Your task to perform on an android device: Go to Yahoo.com Image 0: 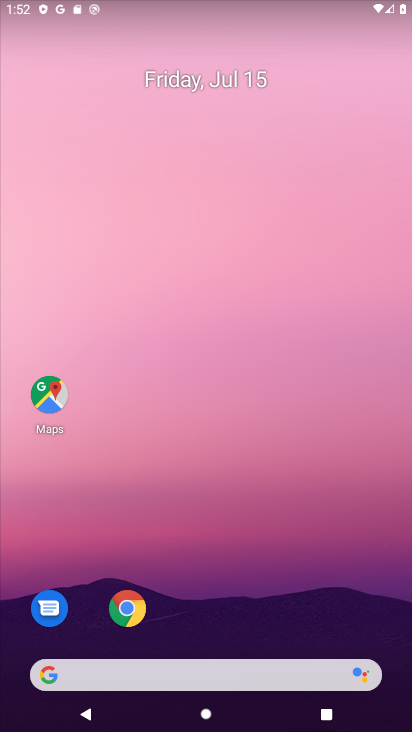
Step 0: click (135, 610)
Your task to perform on an android device: Go to Yahoo.com Image 1: 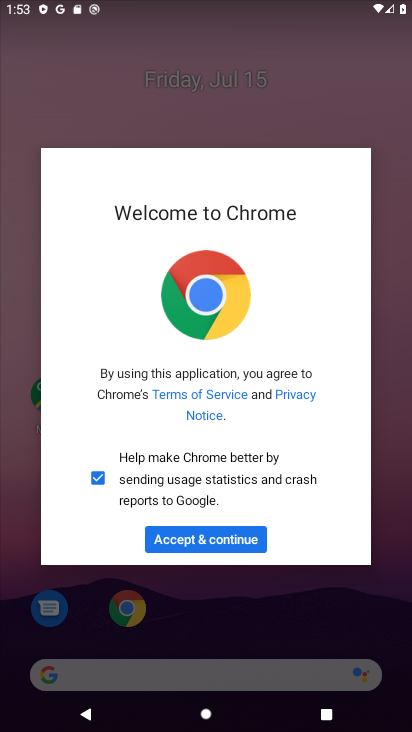
Step 1: click (212, 546)
Your task to perform on an android device: Go to Yahoo.com Image 2: 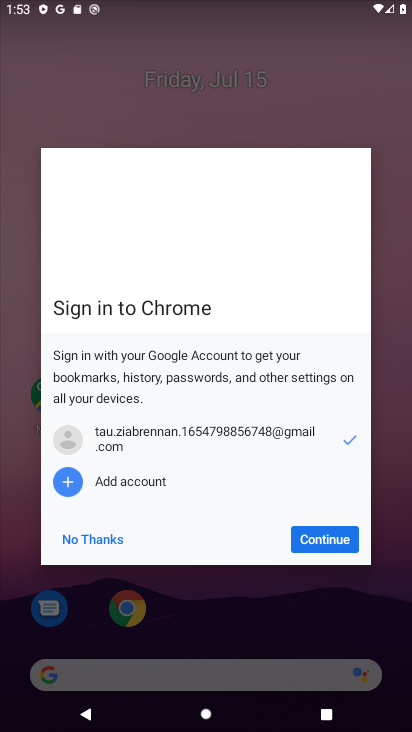
Step 2: click (340, 542)
Your task to perform on an android device: Go to Yahoo.com Image 3: 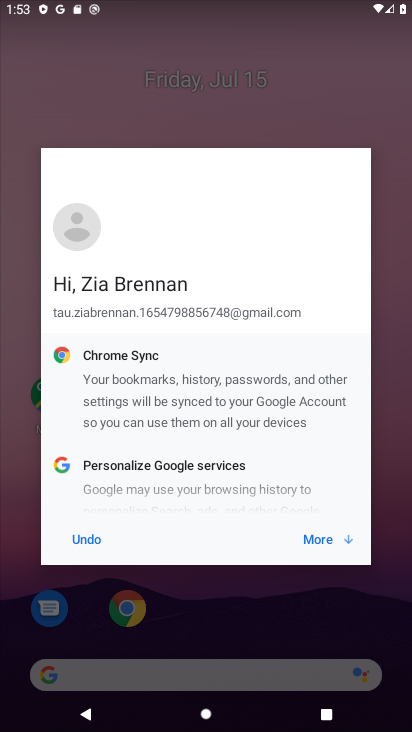
Step 3: click (340, 543)
Your task to perform on an android device: Go to Yahoo.com Image 4: 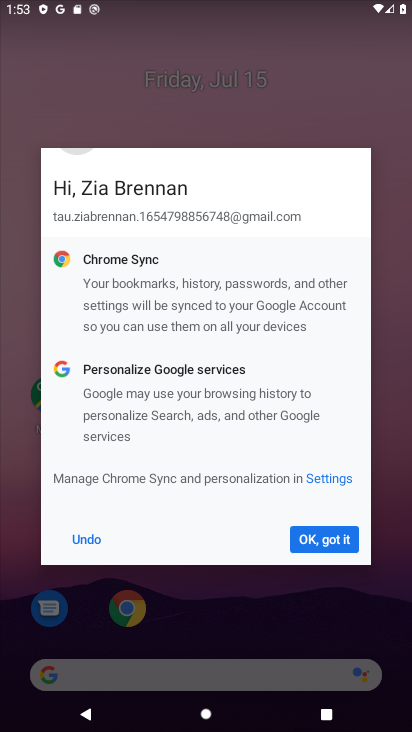
Step 4: click (338, 543)
Your task to perform on an android device: Go to Yahoo.com Image 5: 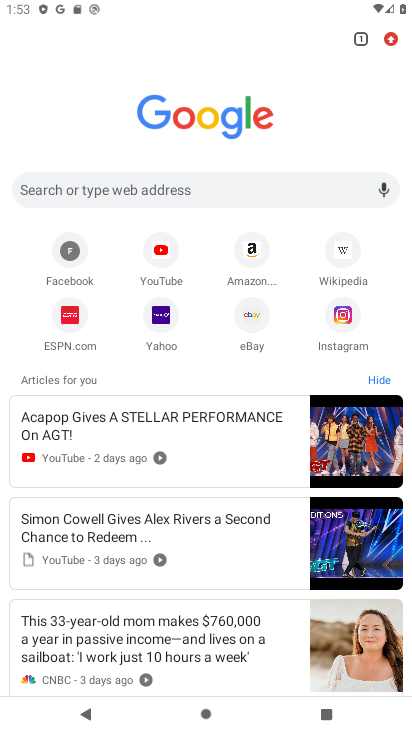
Step 5: click (167, 307)
Your task to perform on an android device: Go to Yahoo.com Image 6: 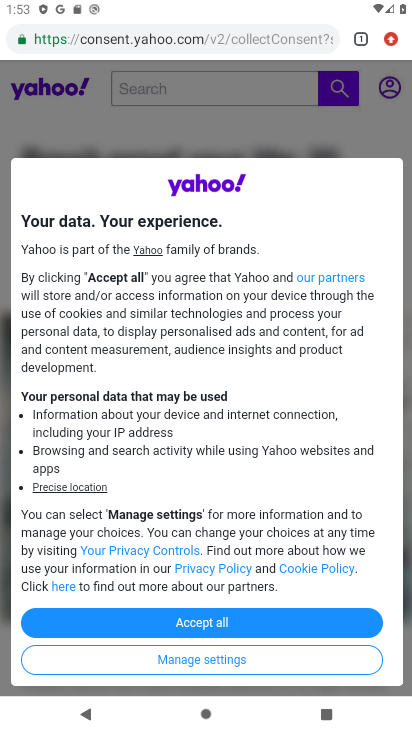
Step 6: click (233, 615)
Your task to perform on an android device: Go to Yahoo.com Image 7: 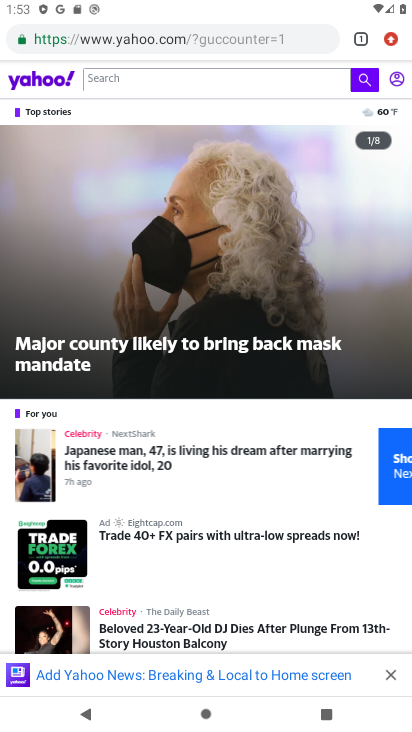
Step 7: task complete